Your task to perform on an android device: Go to Android settings Image 0: 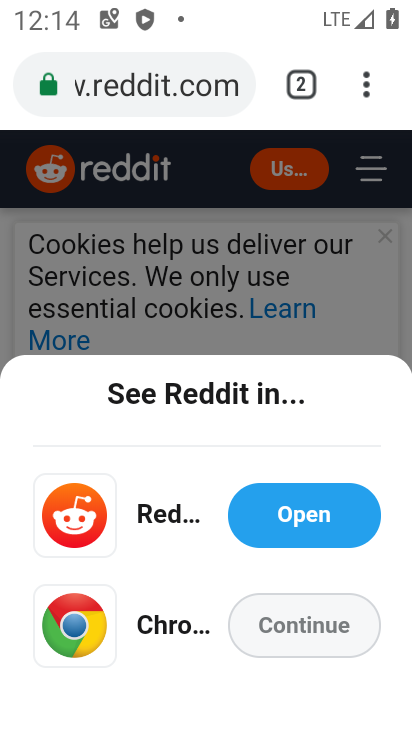
Step 0: press home button
Your task to perform on an android device: Go to Android settings Image 1: 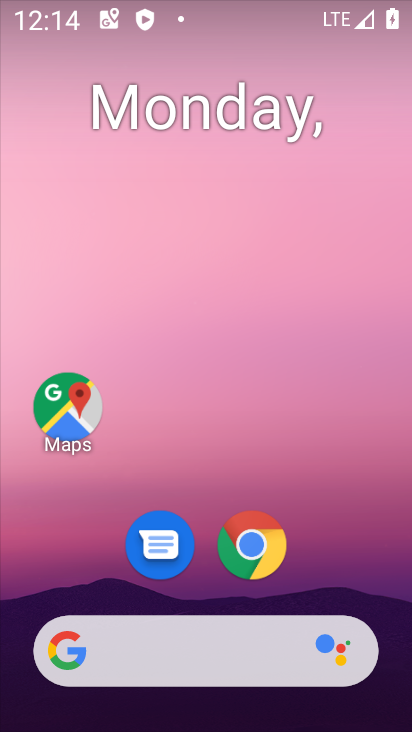
Step 1: drag from (353, 544) to (353, 184)
Your task to perform on an android device: Go to Android settings Image 2: 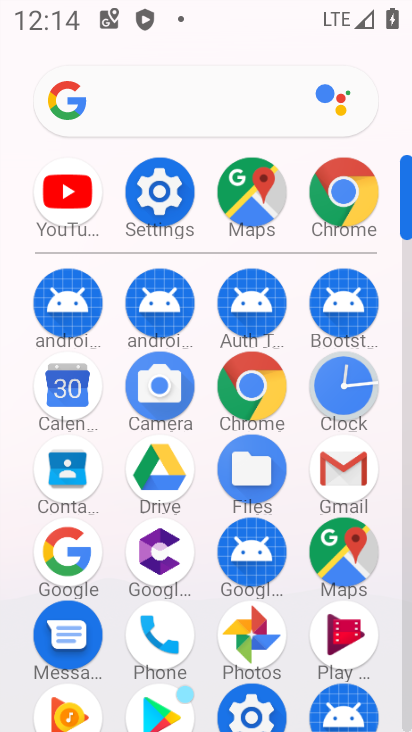
Step 2: click (143, 202)
Your task to perform on an android device: Go to Android settings Image 3: 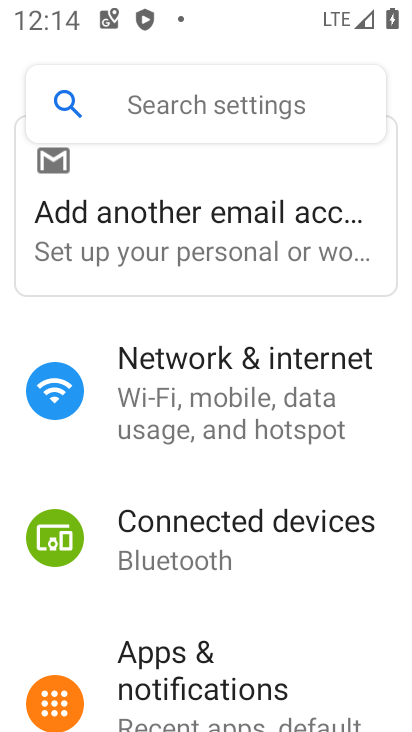
Step 3: drag from (386, 611) to (374, 451)
Your task to perform on an android device: Go to Android settings Image 4: 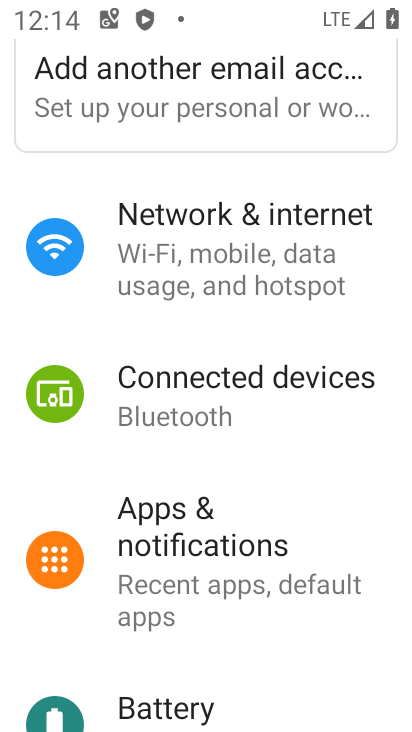
Step 4: drag from (345, 641) to (378, 504)
Your task to perform on an android device: Go to Android settings Image 5: 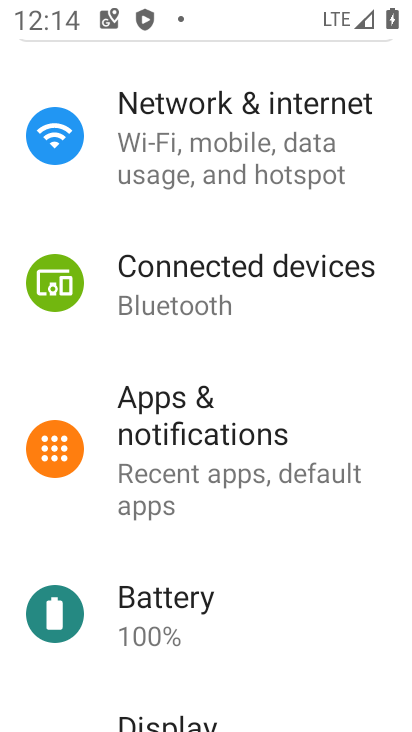
Step 5: drag from (329, 631) to (339, 491)
Your task to perform on an android device: Go to Android settings Image 6: 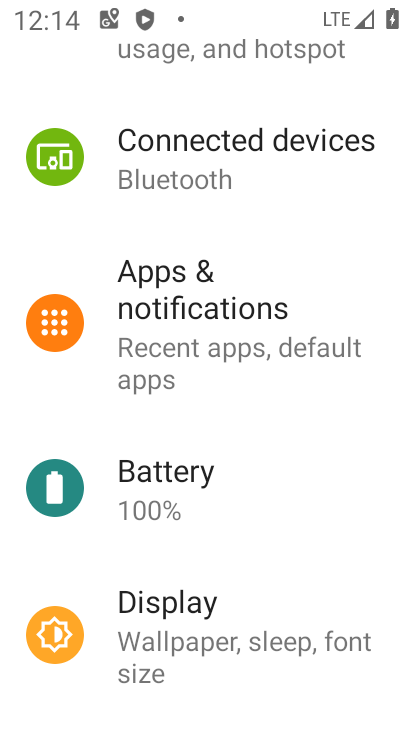
Step 6: drag from (323, 664) to (333, 506)
Your task to perform on an android device: Go to Android settings Image 7: 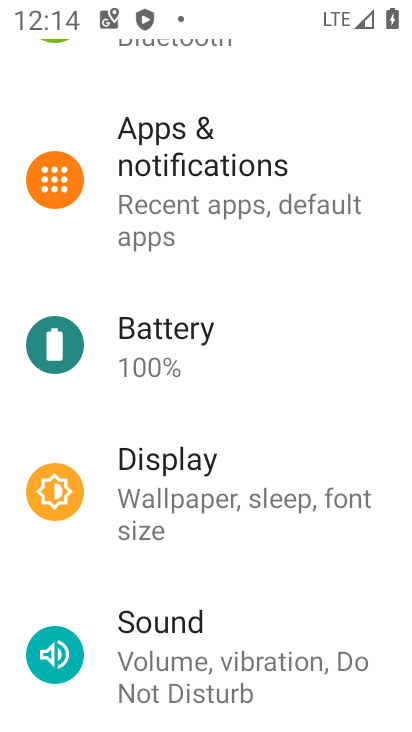
Step 7: drag from (321, 679) to (337, 471)
Your task to perform on an android device: Go to Android settings Image 8: 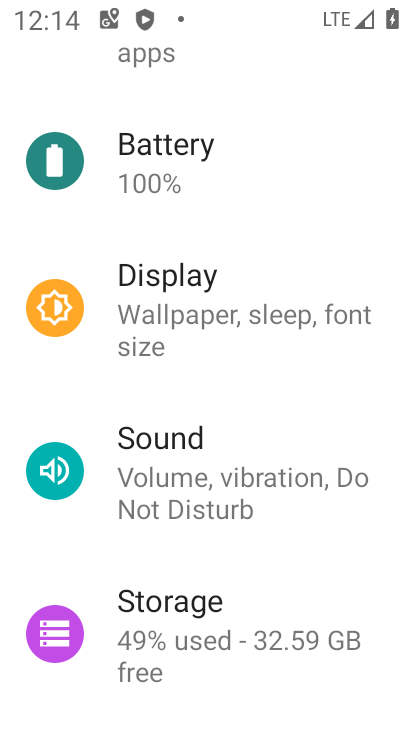
Step 8: drag from (339, 665) to (376, 483)
Your task to perform on an android device: Go to Android settings Image 9: 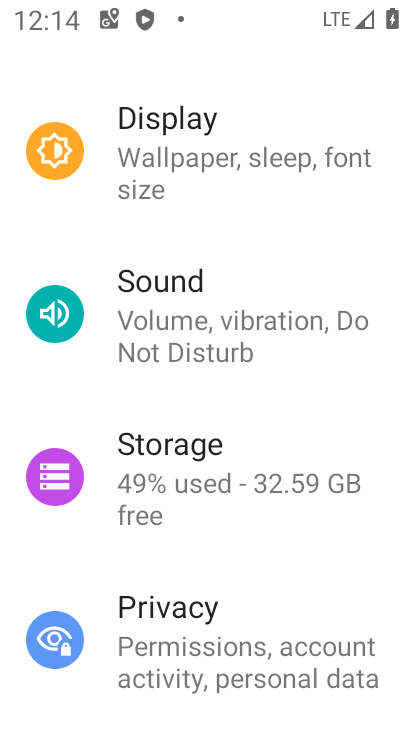
Step 9: drag from (351, 542) to (346, 426)
Your task to perform on an android device: Go to Android settings Image 10: 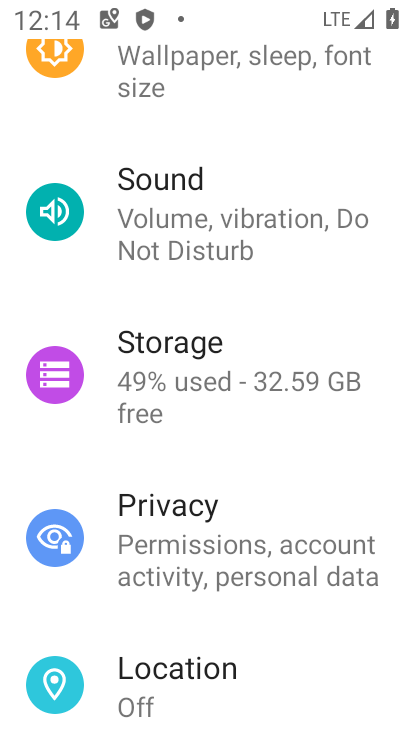
Step 10: drag from (321, 620) to (333, 416)
Your task to perform on an android device: Go to Android settings Image 11: 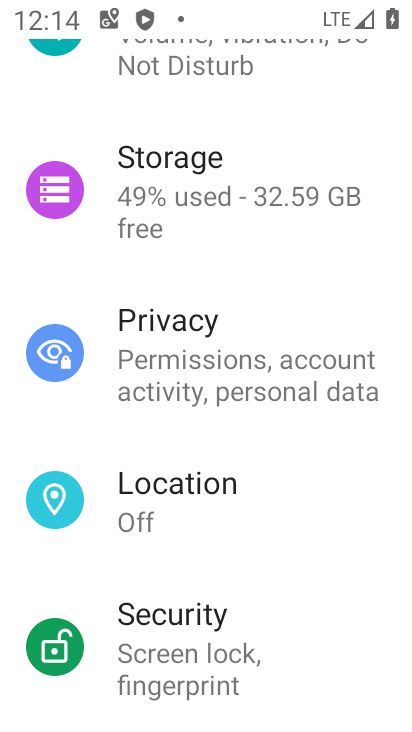
Step 11: drag from (345, 608) to (347, 395)
Your task to perform on an android device: Go to Android settings Image 12: 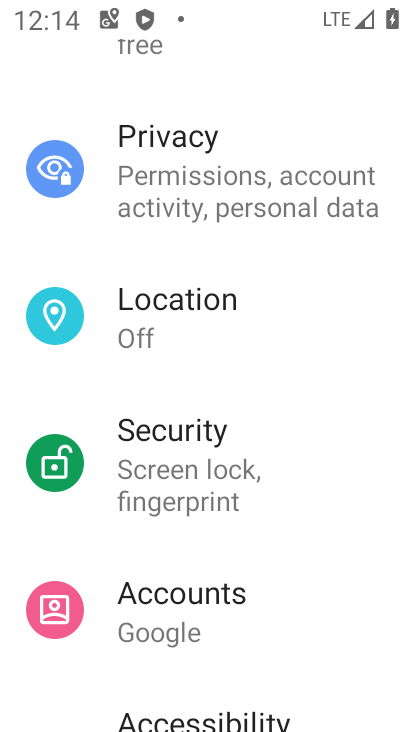
Step 12: drag from (345, 630) to (351, 429)
Your task to perform on an android device: Go to Android settings Image 13: 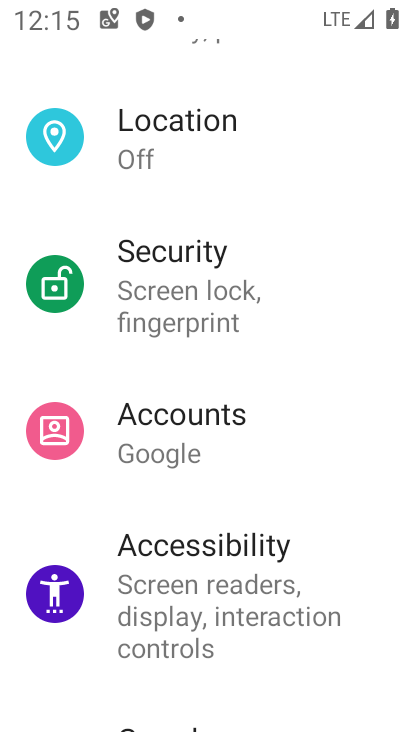
Step 13: drag from (336, 653) to (337, 450)
Your task to perform on an android device: Go to Android settings Image 14: 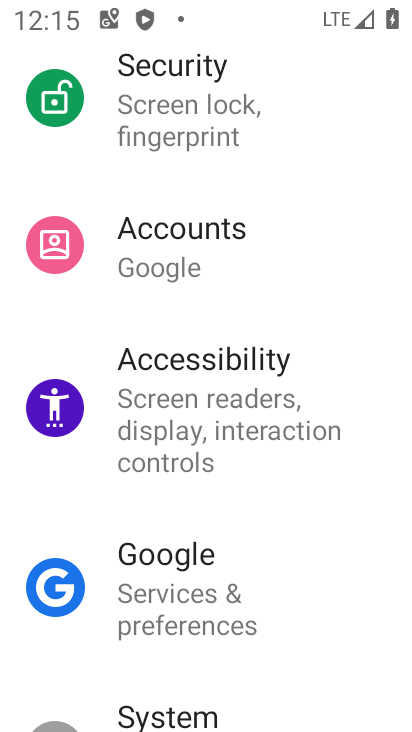
Step 14: drag from (316, 642) to (336, 417)
Your task to perform on an android device: Go to Android settings Image 15: 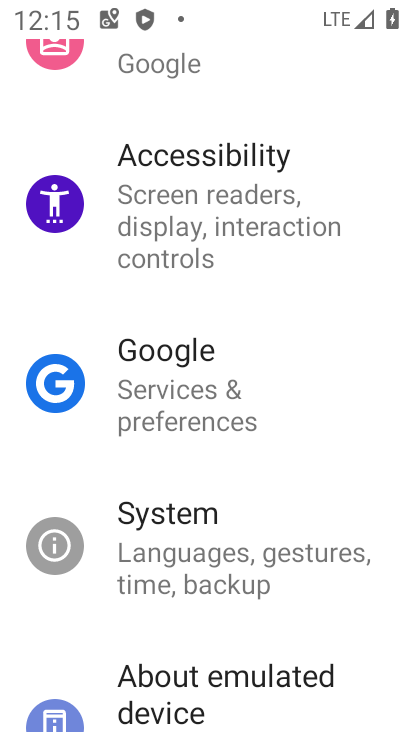
Step 15: click (253, 574)
Your task to perform on an android device: Go to Android settings Image 16: 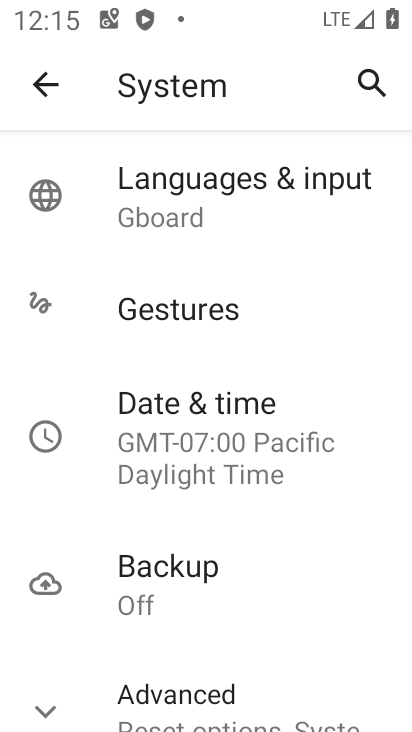
Step 16: drag from (273, 636) to (273, 443)
Your task to perform on an android device: Go to Android settings Image 17: 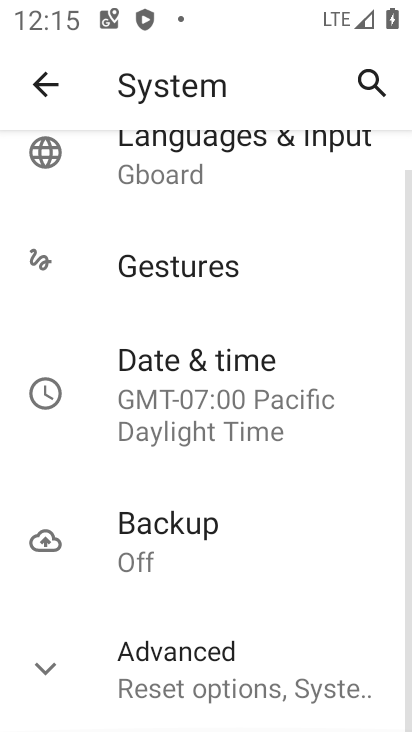
Step 17: click (243, 664)
Your task to perform on an android device: Go to Android settings Image 18: 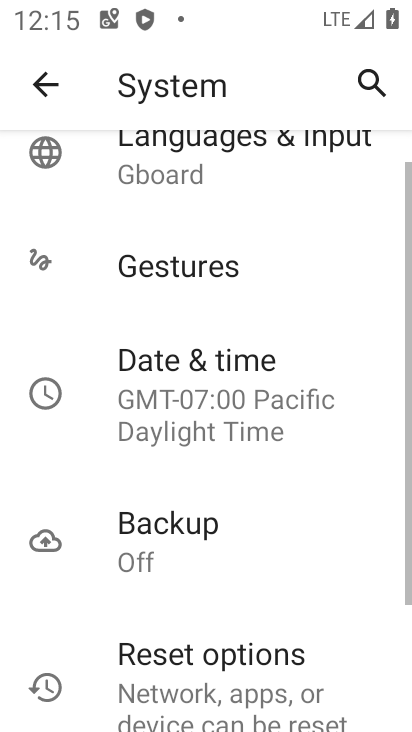
Step 18: task complete